Your task to perform on an android device: turn pop-ups off in chrome Image 0: 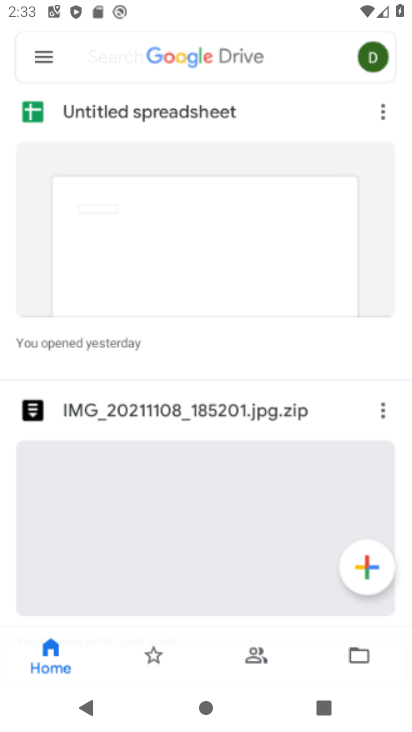
Step 0: drag from (296, 545) to (319, 109)
Your task to perform on an android device: turn pop-ups off in chrome Image 1: 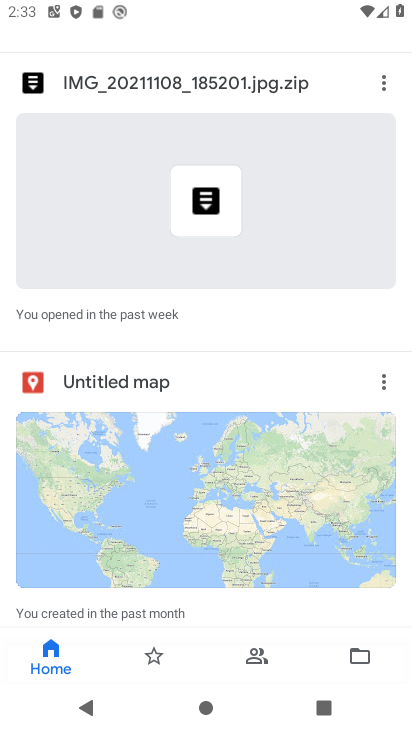
Step 1: press home button
Your task to perform on an android device: turn pop-ups off in chrome Image 2: 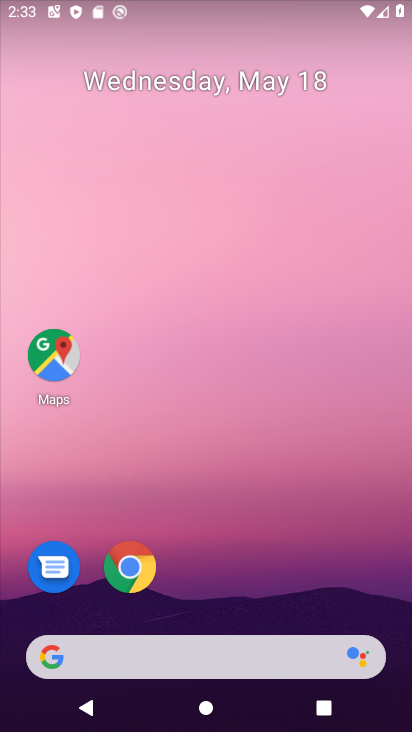
Step 2: click (137, 565)
Your task to perform on an android device: turn pop-ups off in chrome Image 3: 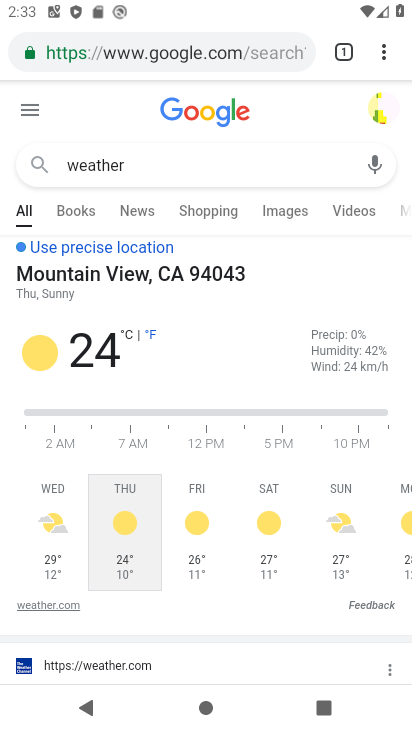
Step 3: drag from (393, 43) to (231, 590)
Your task to perform on an android device: turn pop-ups off in chrome Image 4: 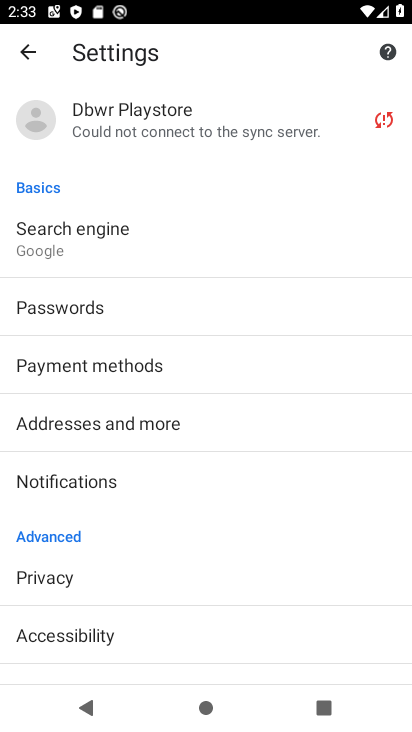
Step 4: drag from (155, 578) to (203, 223)
Your task to perform on an android device: turn pop-ups off in chrome Image 5: 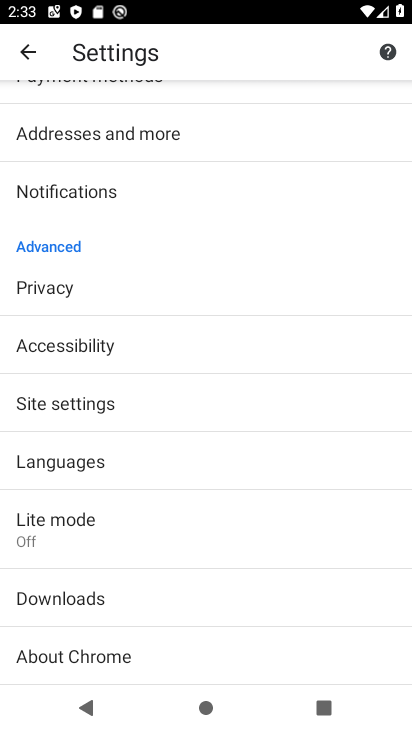
Step 5: click (103, 403)
Your task to perform on an android device: turn pop-ups off in chrome Image 6: 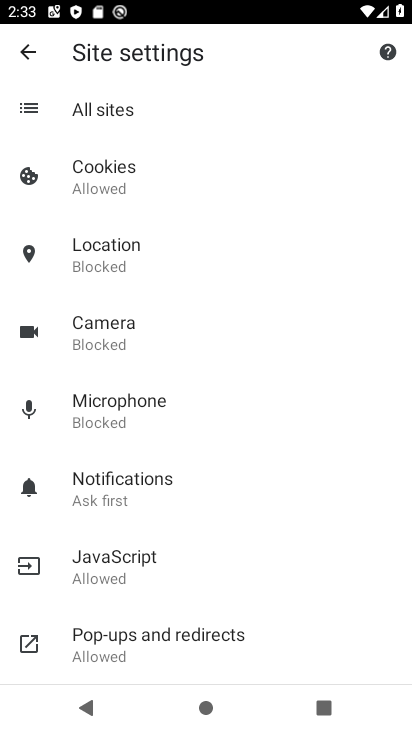
Step 6: drag from (242, 549) to (284, 282)
Your task to perform on an android device: turn pop-ups off in chrome Image 7: 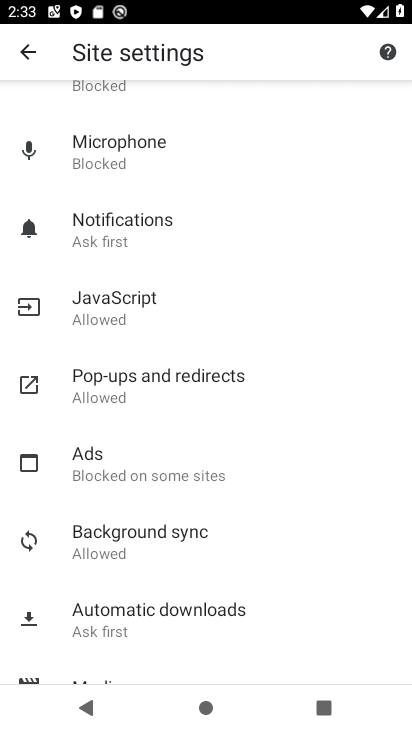
Step 7: click (185, 390)
Your task to perform on an android device: turn pop-ups off in chrome Image 8: 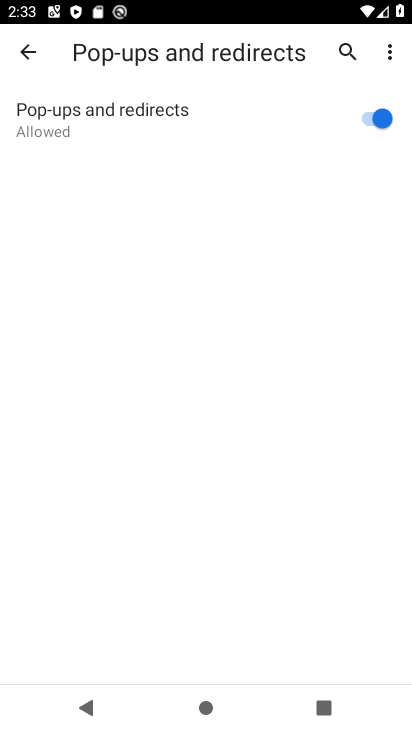
Step 8: click (382, 111)
Your task to perform on an android device: turn pop-ups off in chrome Image 9: 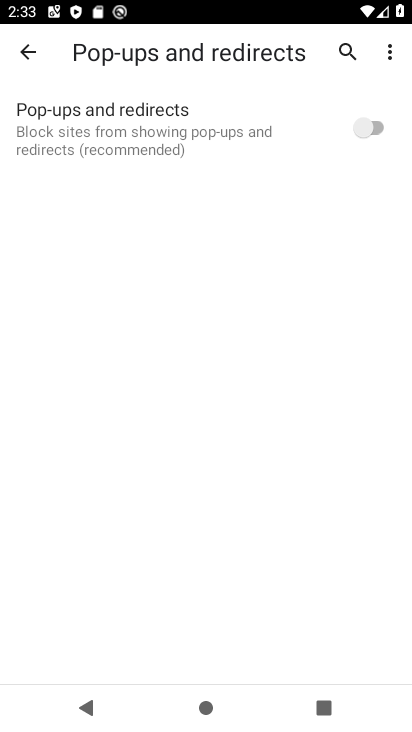
Step 9: task complete